Your task to perform on an android device: change the clock display to digital Image 0: 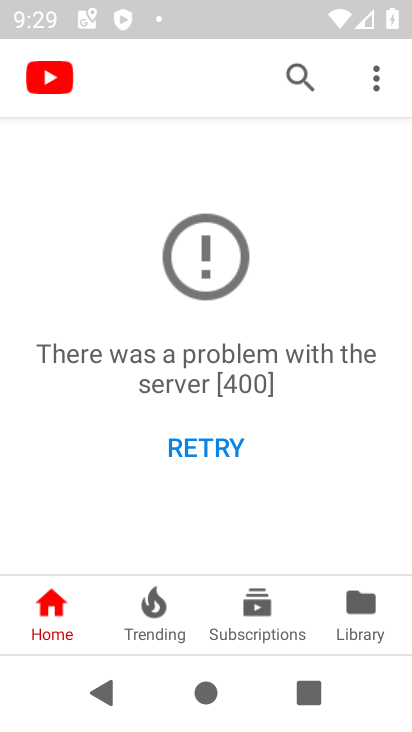
Step 0: press home button
Your task to perform on an android device: change the clock display to digital Image 1: 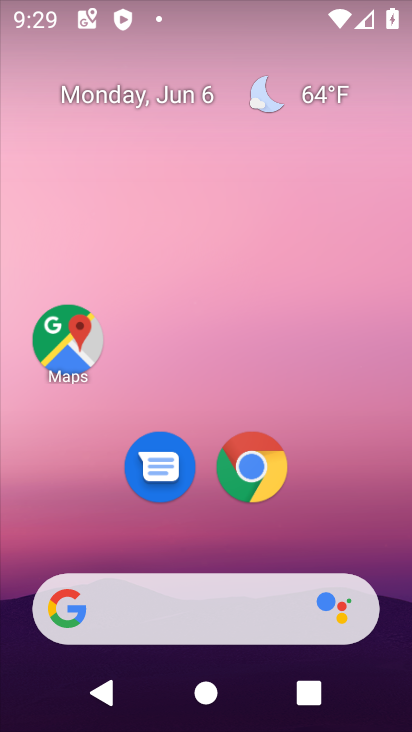
Step 1: drag from (94, 550) to (210, 120)
Your task to perform on an android device: change the clock display to digital Image 2: 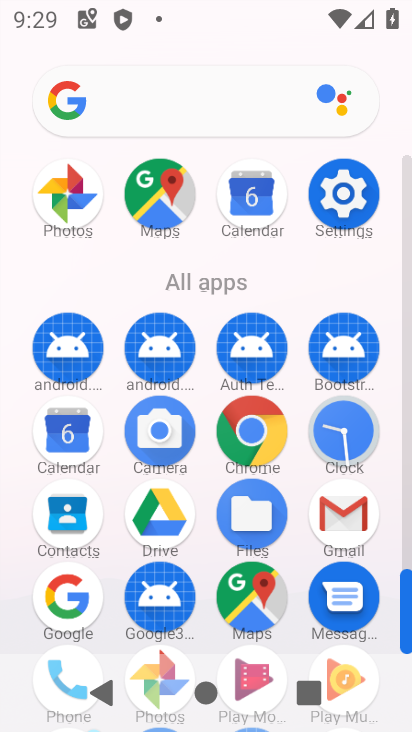
Step 2: click (346, 427)
Your task to perform on an android device: change the clock display to digital Image 3: 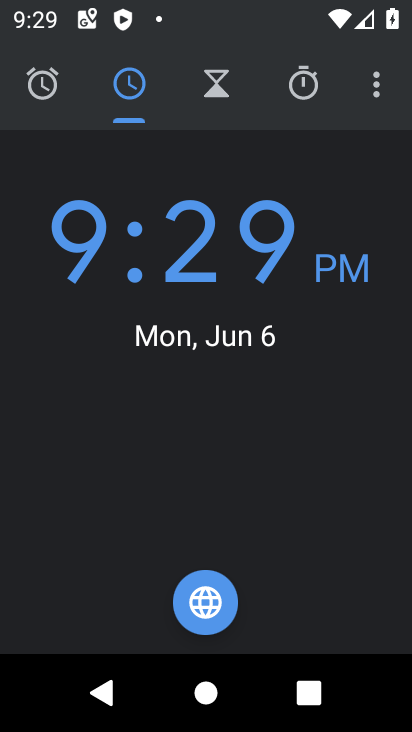
Step 3: click (376, 82)
Your task to perform on an android device: change the clock display to digital Image 4: 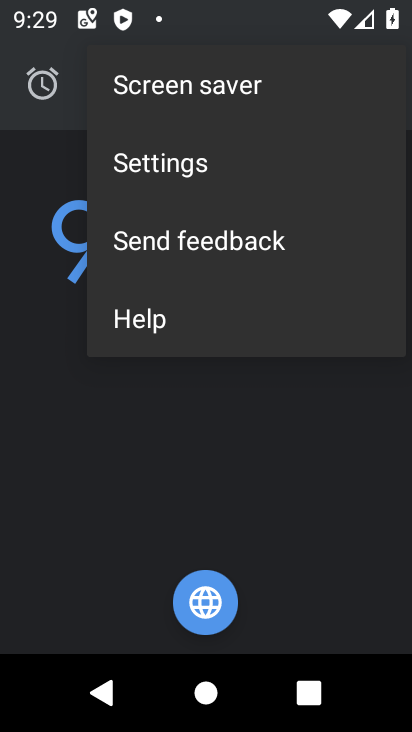
Step 4: click (353, 138)
Your task to perform on an android device: change the clock display to digital Image 5: 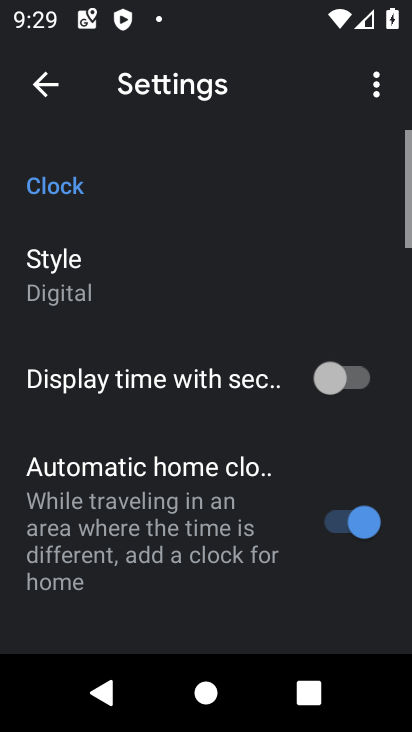
Step 5: click (298, 261)
Your task to perform on an android device: change the clock display to digital Image 6: 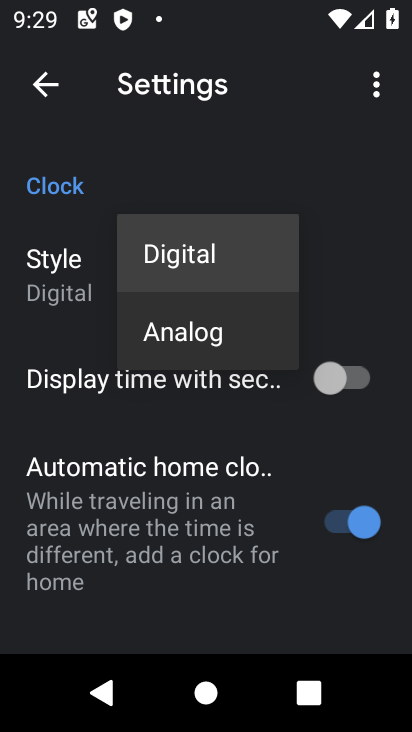
Step 6: task complete